Your task to perform on an android device: check out phone information Image 0: 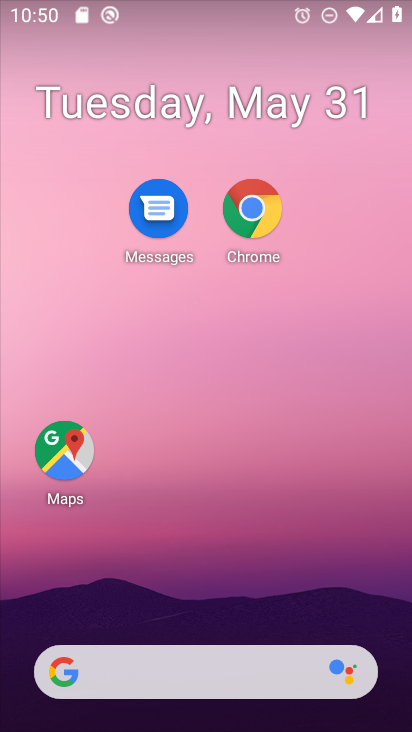
Step 0: press home button
Your task to perform on an android device: check out phone information Image 1: 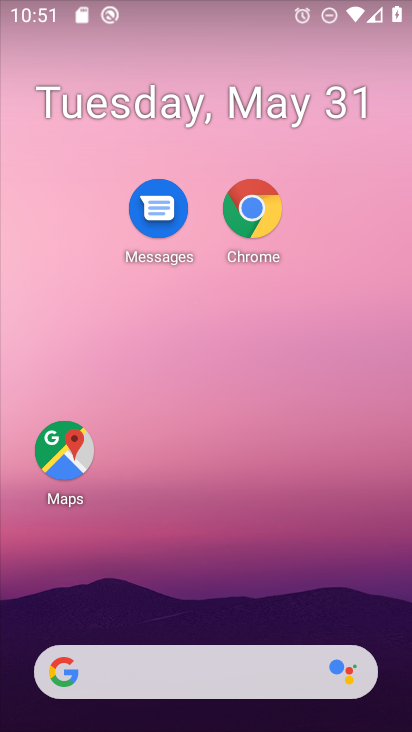
Step 1: drag from (224, 626) to (218, 89)
Your task to perform on an android device: check out phone information Image 2: 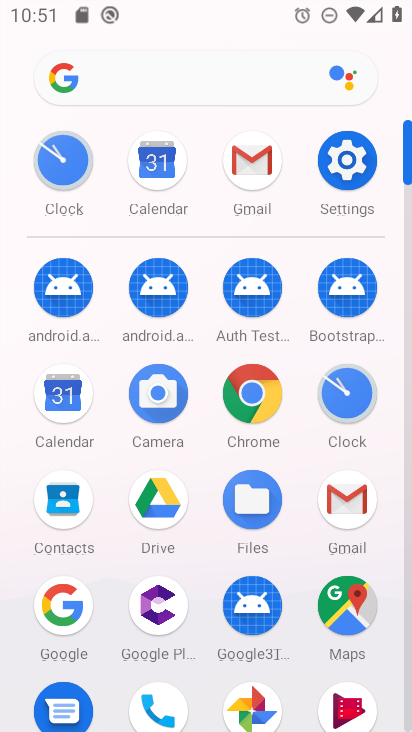
Step 2: drag from (201, 691) to (226, 165)
Your task to perform on an android device: check out phone information Image 3: 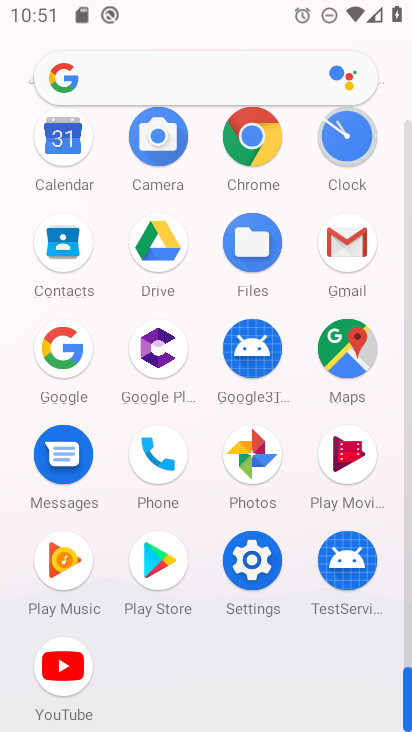
Step 3: click (249, 552)
Your task to perform on an android device: check out phone information Image 4: 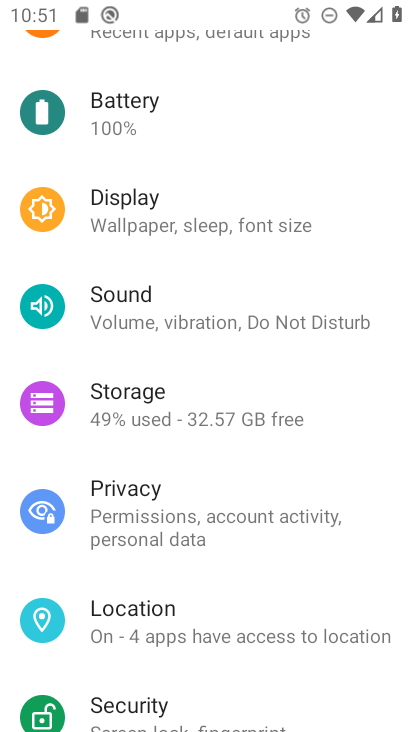
Step 4: drag from (203, 681) to (221, 83)
Your task to perform on an android device: check out phone information Image 5: 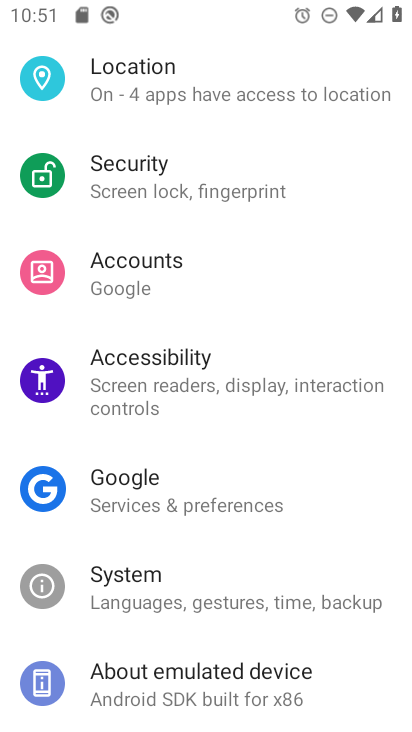
Step 5: click (312, 685)
Your task to perform on an android device: check out phone information Image 6: 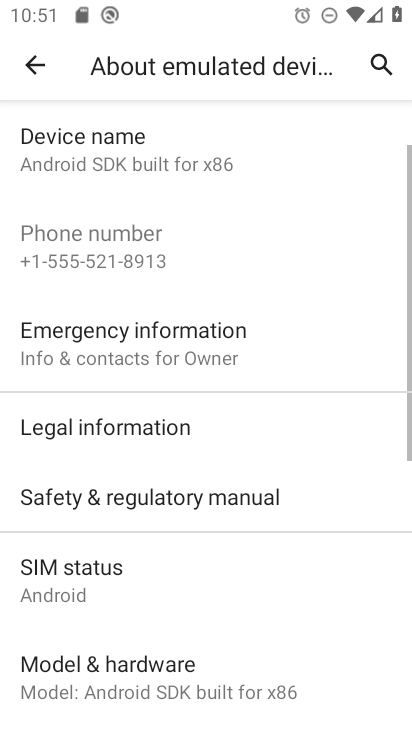
Step 6: task complete